Your task to perform on an android device: Open Chrome and go to the settings page Image 0: 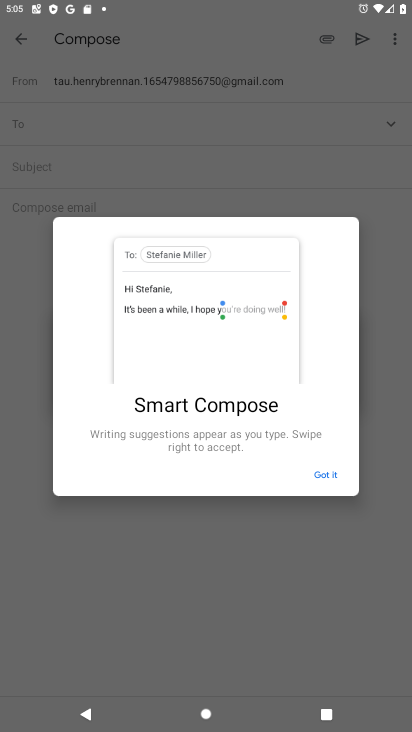
Step 0: press home button
Your task to perform on an android device: Open Chrome and go to the settings page Image 1: 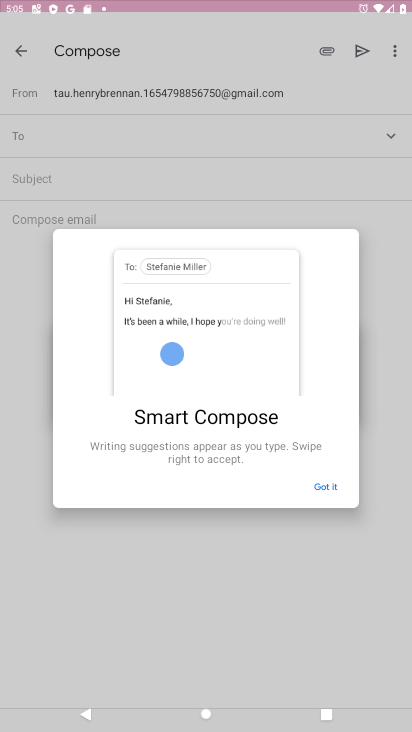
Step 1: press home button
Your task to perform on an android device: Open Chrome and go to the settings page Image 2: 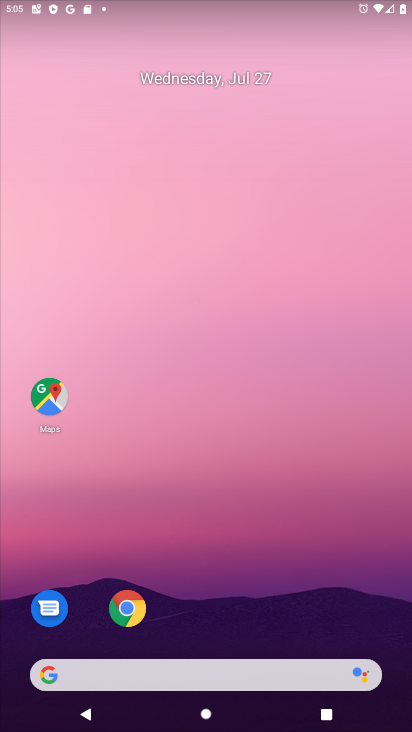
Step 2: drag from (213, 650) to (210, 273)
Your task to perform on an android device: Open Chrome and go to the settings page Image 3: 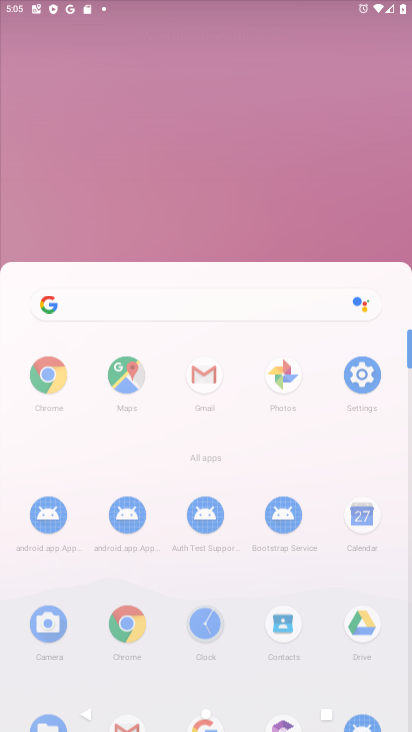
Step 3: click (210, 273)
Your task to perform on an android device: Open Chrome and go to the settings page Image 4: 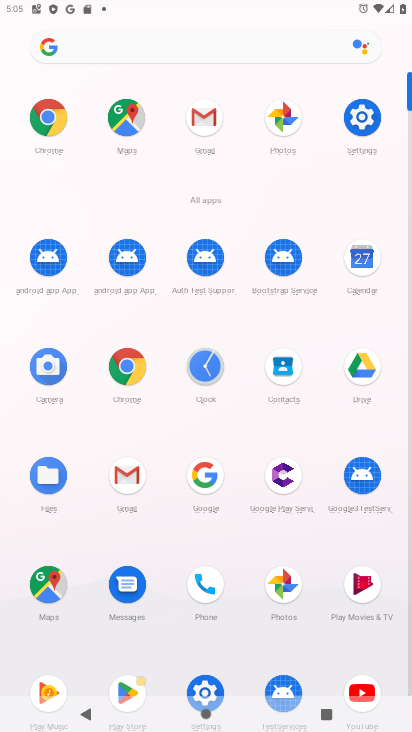
Step 4: click (40, 105)
Your task to perform on an android device: Open Chrome and go to the settings page Image 5: 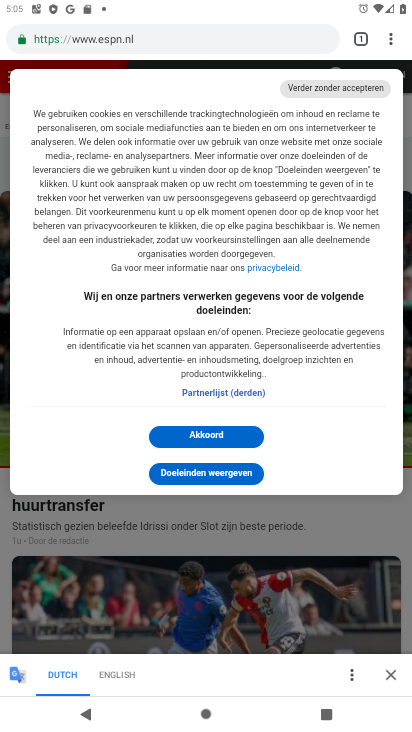
Step 5: click (393, 32)
Your task to perform on an android device: Open Chrome and go to the settings page Image 6: 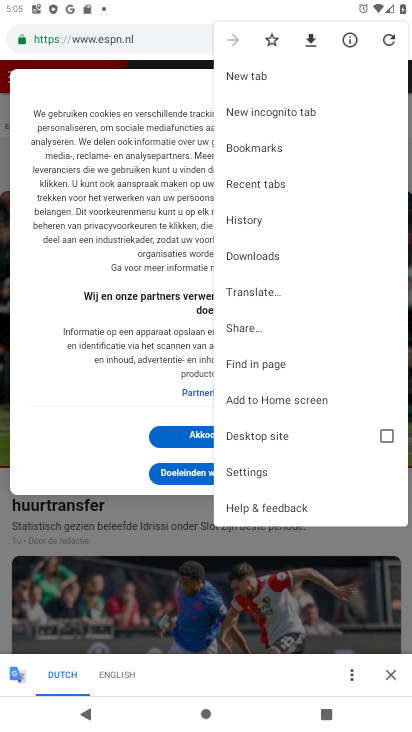
Step 6: click (242, 465)
Your task to perform on an android device: Open Chrome and go to the settings page Image 7: 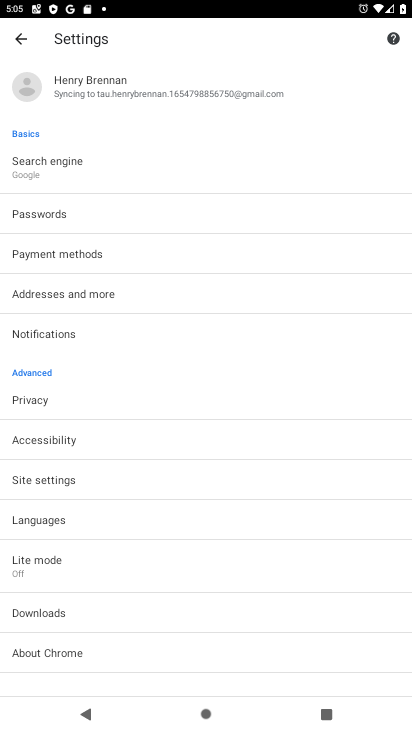
Step 7: task complete